Your task to perform on an android device: Show me the alarms in the clock app Image 0: 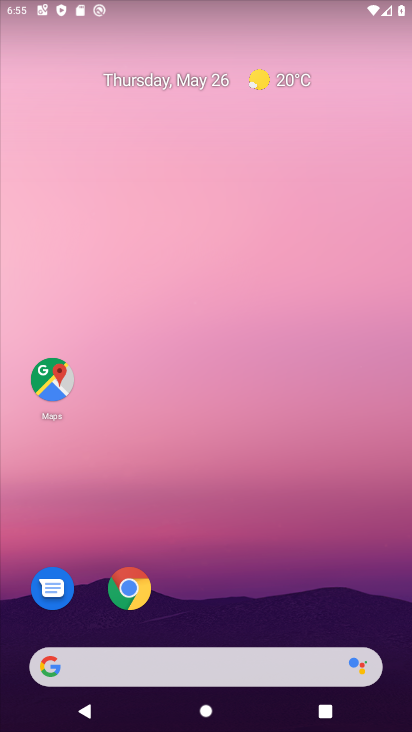
Step 0: drag from (382, 606) to (271, 94)
Your task to perform on an android device: Show me the alarms in the clock app Image 1: 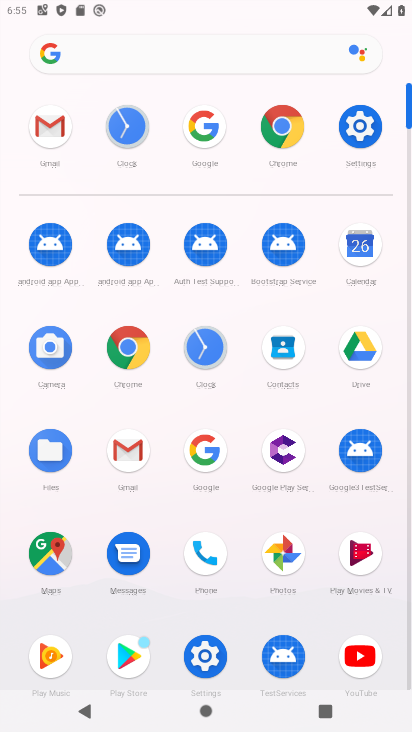
Step 1: click (195, 352)
Your task to perform on an android device: Show me the alarms in the clock app Image 2: 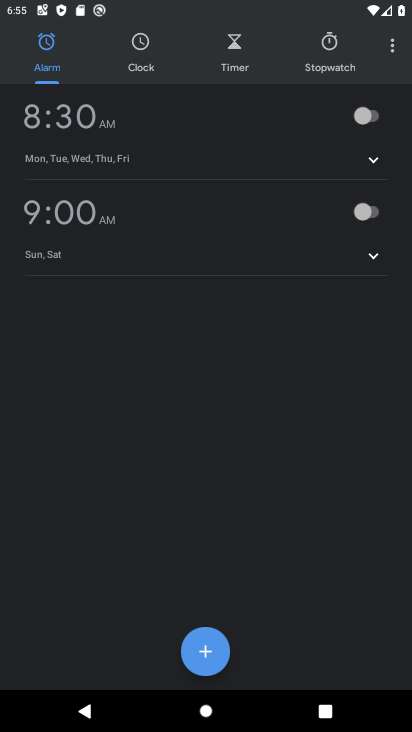
Step 2: task complete